Your task to perform on an android device: Find coffee shops on Maps Image 0: 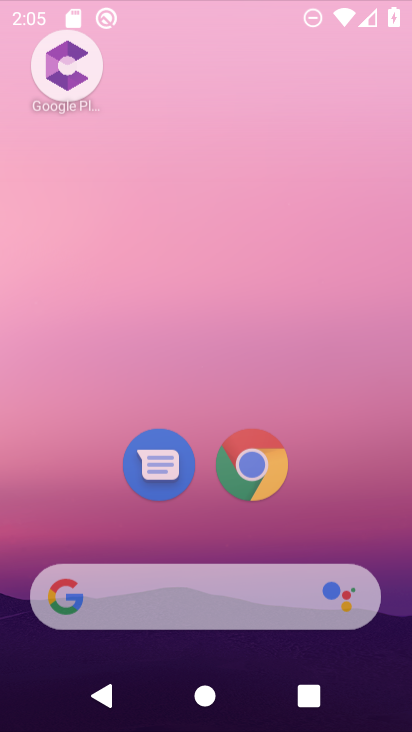
Step 0: click (378, 115)
Your task to perform on an android device: Find coffee shops on Maps Image 1: 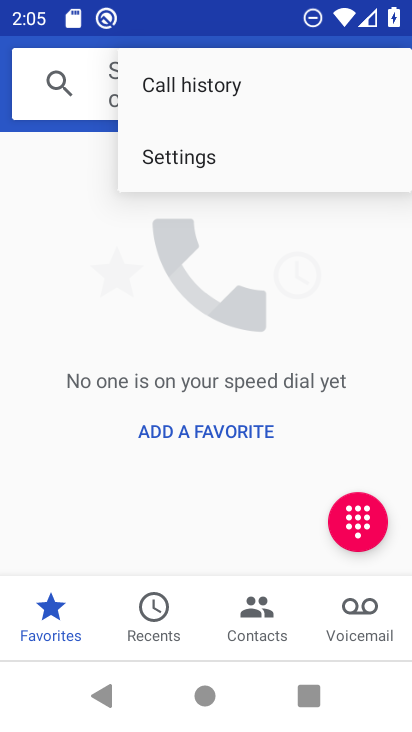
Step 1: press home button
Your task to perform on an android device: Find coffee shops on Maps Image 2: 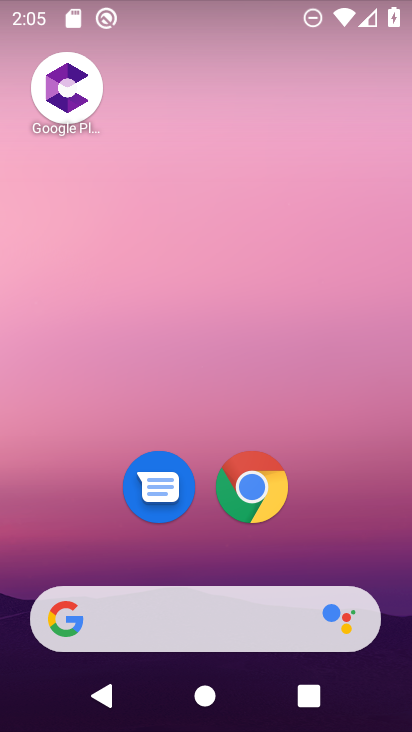
Step 2: drag from (364, 523) to (357, 236)
Your task to perform on an android device: Find coffee shops on Maps Image 3: 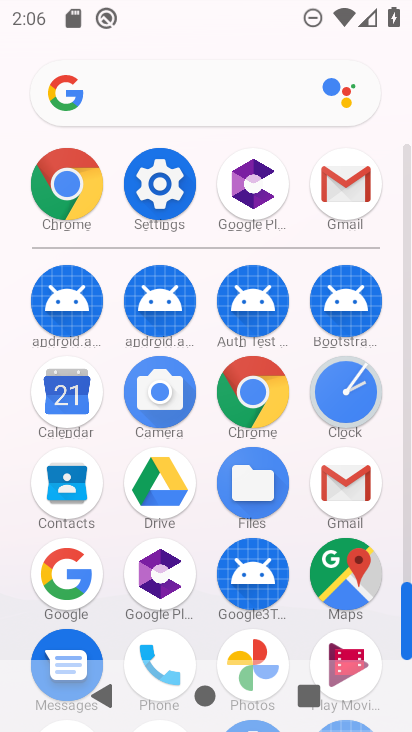
Step 3: click (339, 552)
Your task to perform on an android device: Find coffee shops on Maps Image 4: 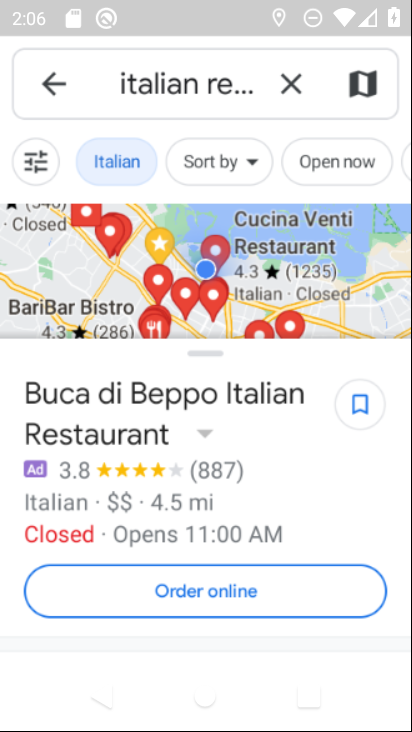
Step 4: click (294, 81)
Your task to perform on an android device: Find coffee shops on Maps Image 5: 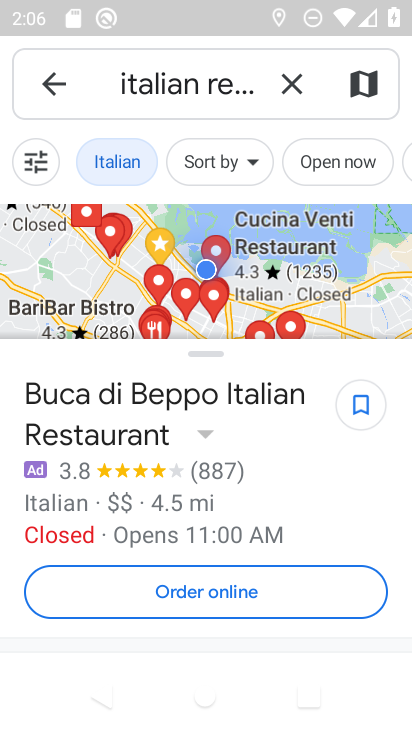
Step 5: click (286, 83)
Your task to perform on an android device: Find coffee shops on Maps Image 6: 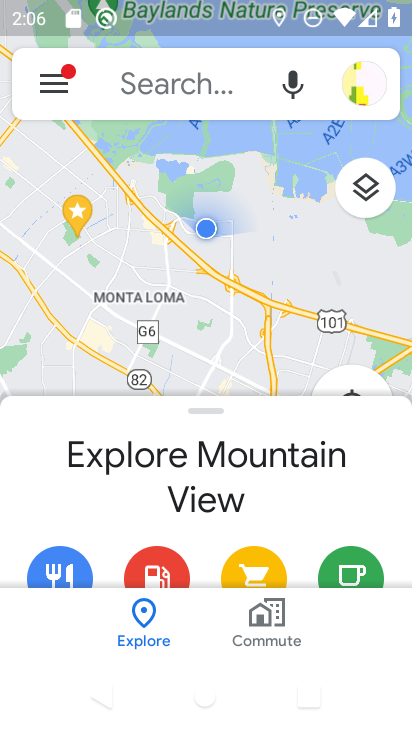
Step 6: click (185, 85)
Your task to perform on an android device: Find coffee shops on Maps Image 7: 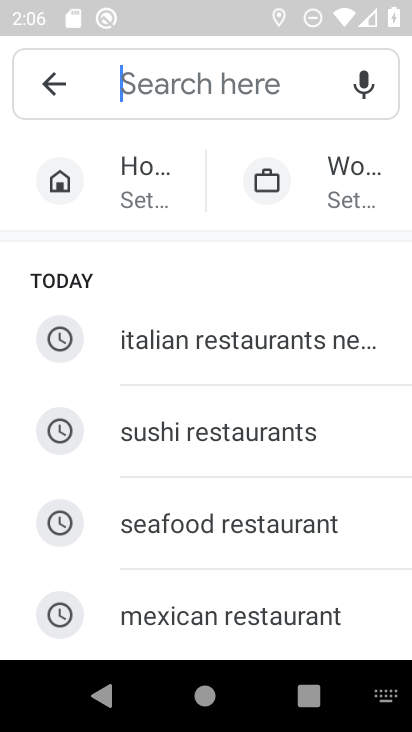
Step 7: type "coffee shops"
Your task to perform on an android device: Find coffee shops on Maps Image 8: 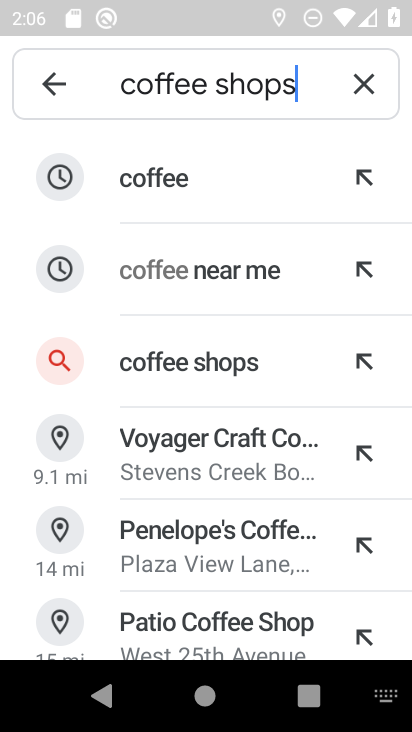
Step 8: click (198, 374)
Your task to perform on an android device: Find coffee shops on Maps Image 9: 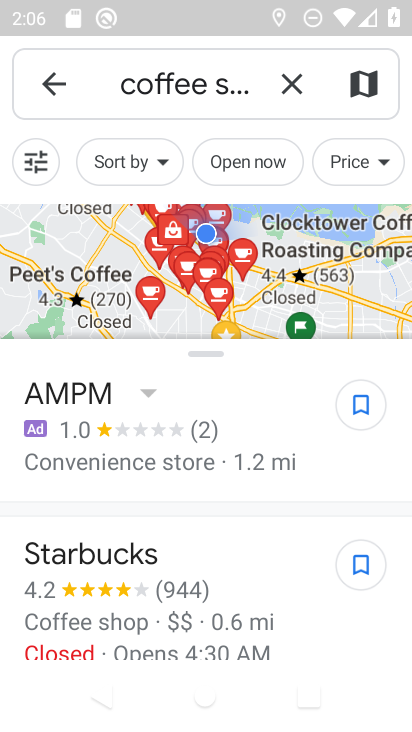
Step 9: task complete